Your task to perform on an android device: toggle pop-ups in chrome Image 0: 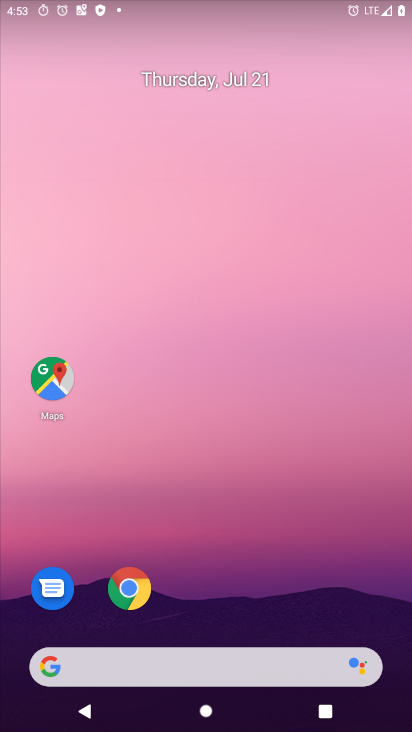
Step 0: press home button
Your task to perform on an android device: toggle pop-ups in chrome Image 1: 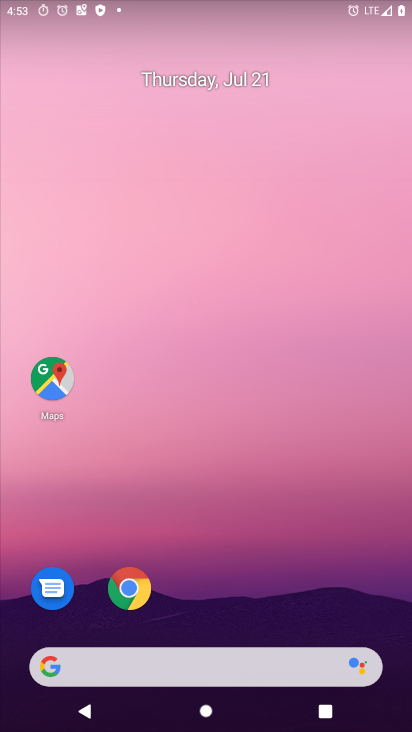
Step 1: drag from (253, 598) to (249, 463)
Your task to perform on an android device: toggle pop-ups in chrome Image 2: 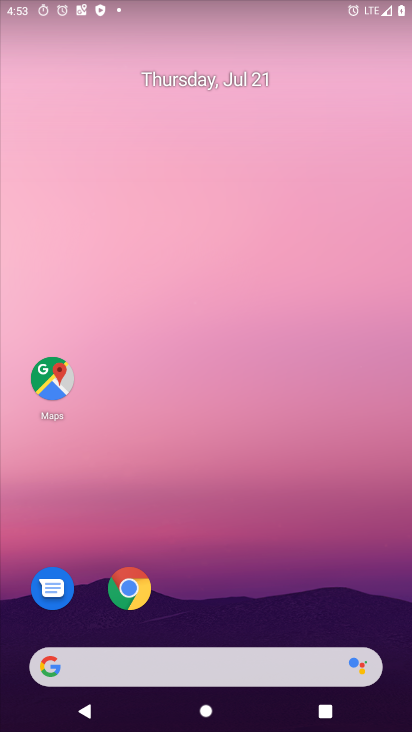
Step 2: click (127, 589)
Your task to perform on an android device: toggle pop-ups in chrome Image 3: 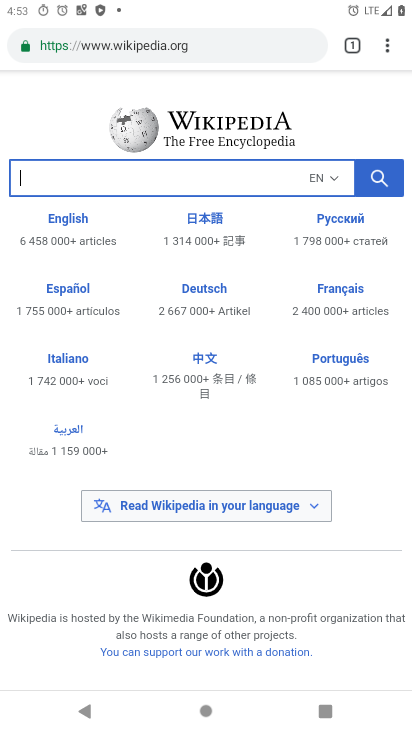
Step 3: drag from (390, 48) to (201, 509)
Your task to perform on an android device: toggle pop-ups in chrome Image 4: 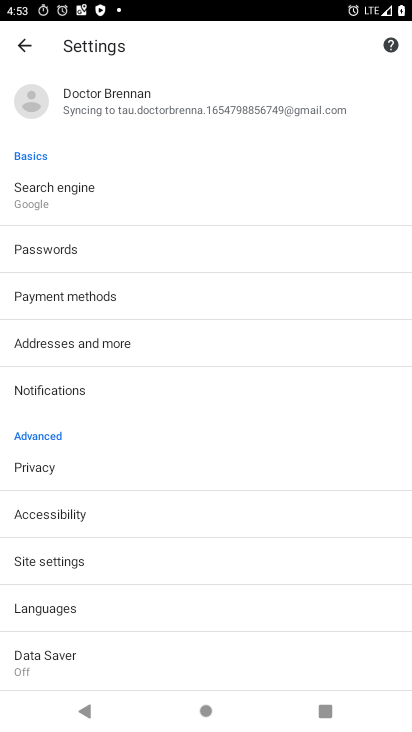
Step 4: click (34, 568)
Your task to perform on an android device: toggle pop-ups in chrome Image 5: 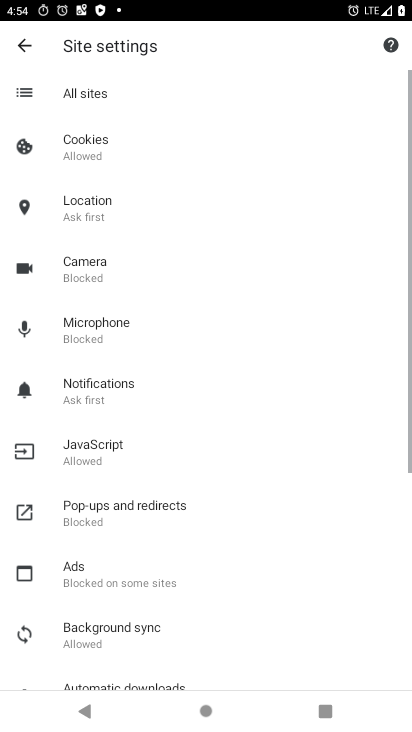
Step 5: click (29, 519)
Your task to perform on an android device: toggle pop-ups in chrome Image 6: 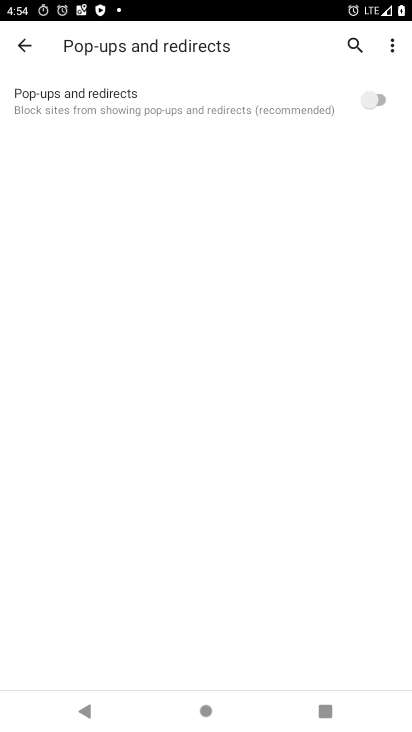
Step 6: click (150, 94)
Your task to perform on an android device: toggle pop-ups in chrome Image 7: 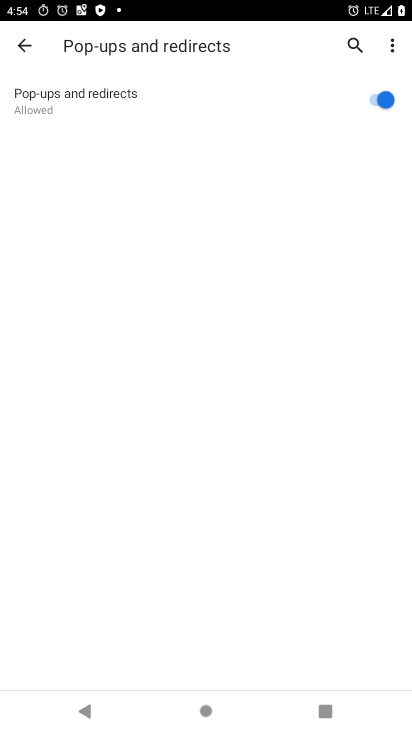
Step 7: task complete